Your task to perform on an android device: Search for hotels in Zurich Image 0: 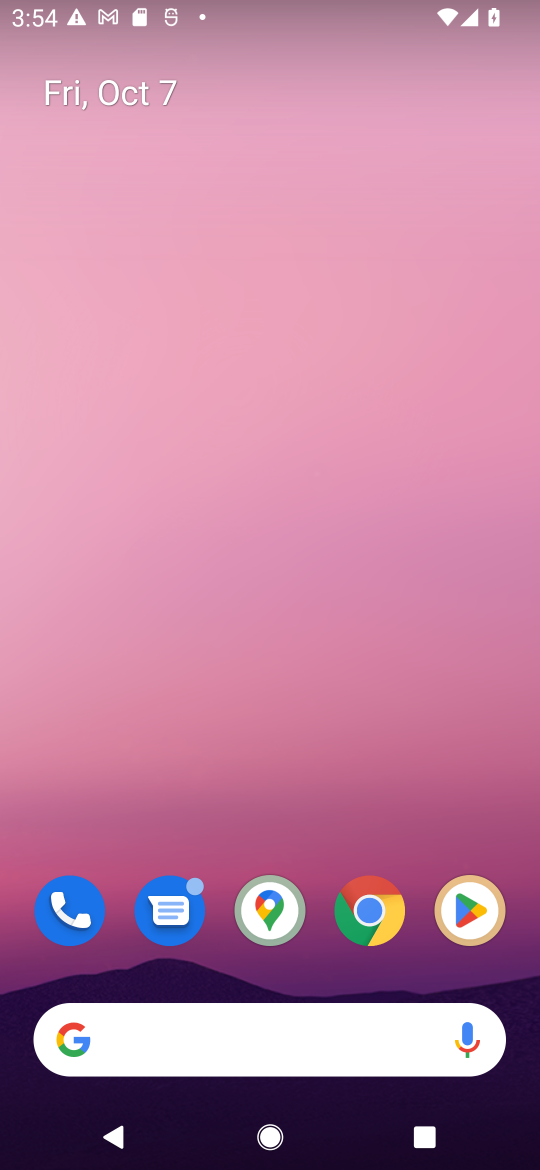
Step 0: click (254, 924)
Your task to perform on an android device: Search for hotels in Zurich Image 1: 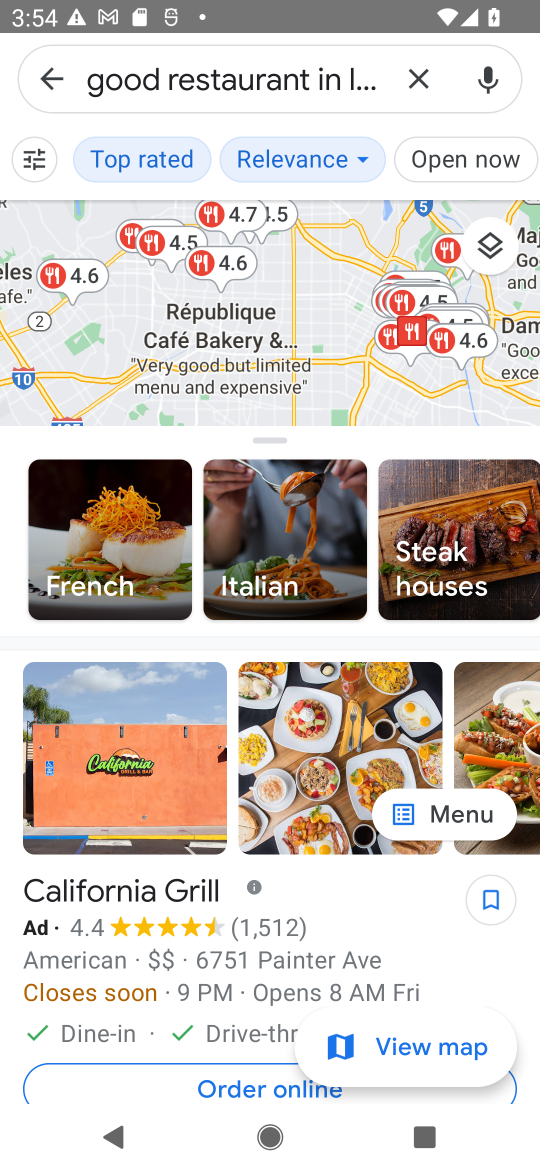
Step 1: click (53, 70)
Your task to perform on an android device: Search for hotels in Zurich Image 2: 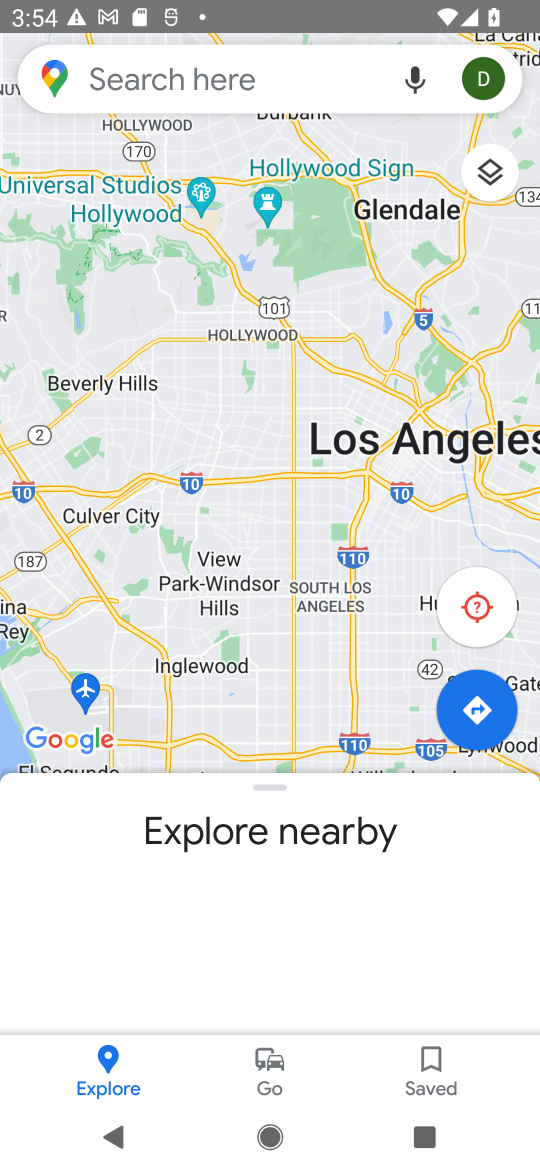
Step 2: click (219, 71)
Your task to perform on an android device: Search for hotels in Zurich Image 3: 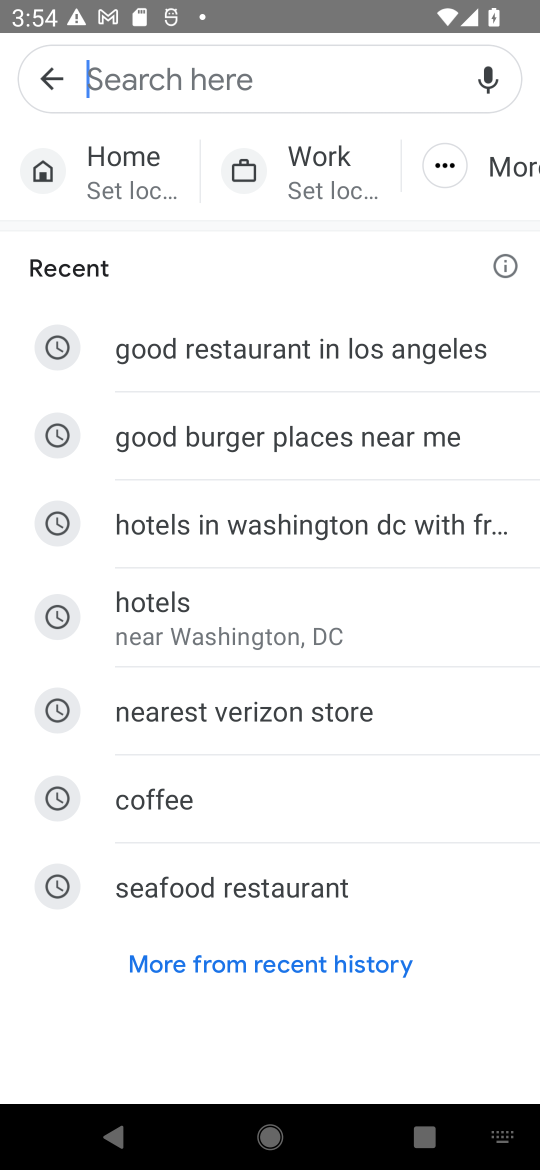
Step 3: type "hotels in Zurich"
Your task to perform on an android device: Search for hotels in Zurich Image 4: 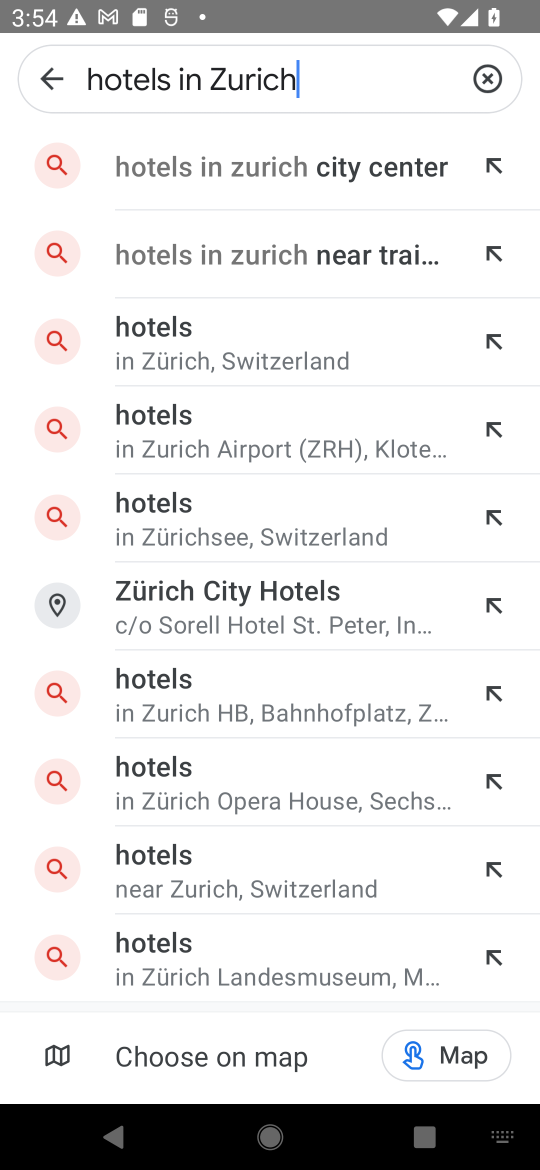
Step 4: click (166, 364)
Your task to perform on an android device: Search for hotels in Zurich Image 5: 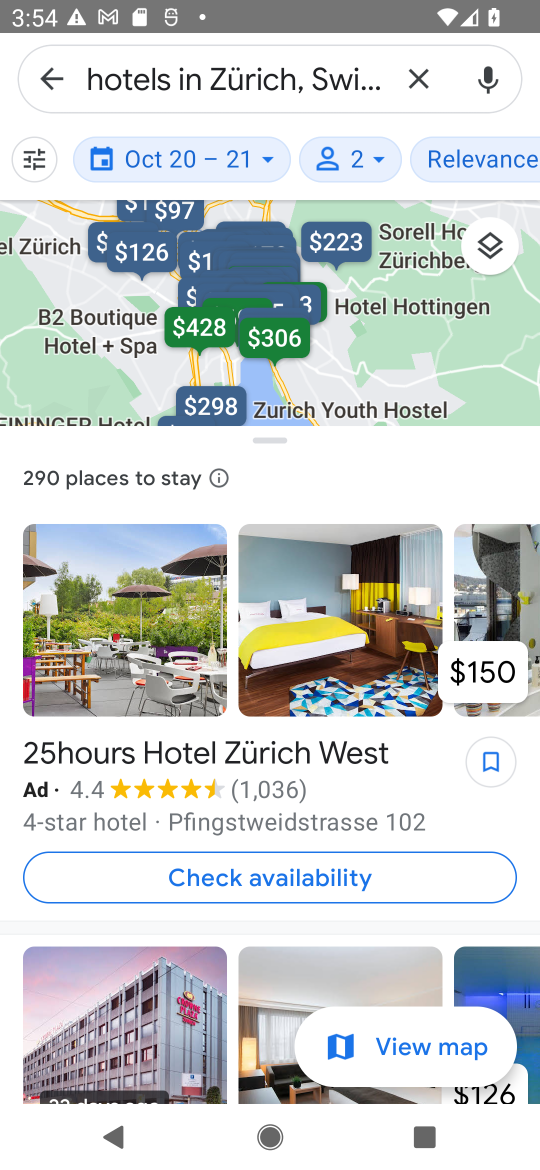
Step 5: task complete